Your task to perform on an android device: open app "NewsBreak: Local News & Alerts" (install if not already installed) Image 0: 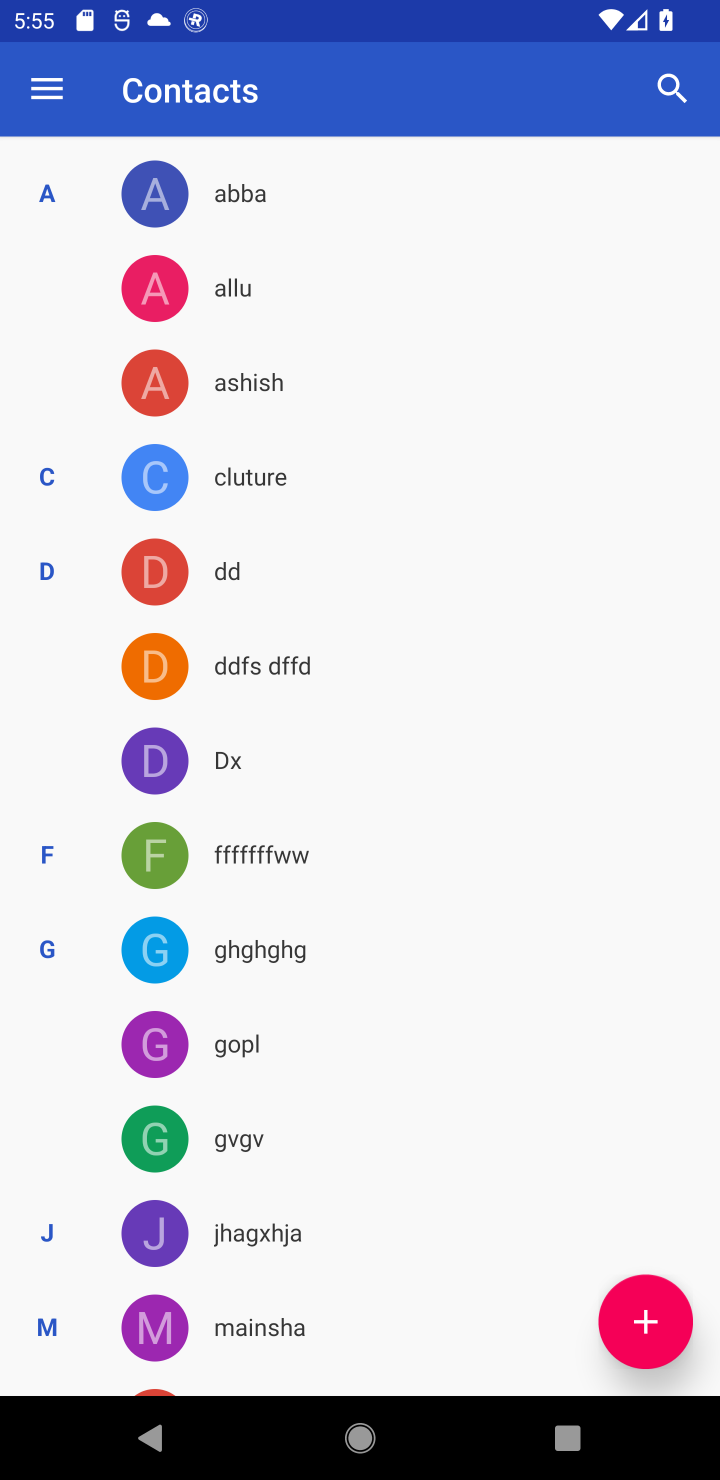
Step 0: press home button
Your task to perform on an android device: open app "NewsBreak: Local News & Alerts" (install if not already installed) Image 1: 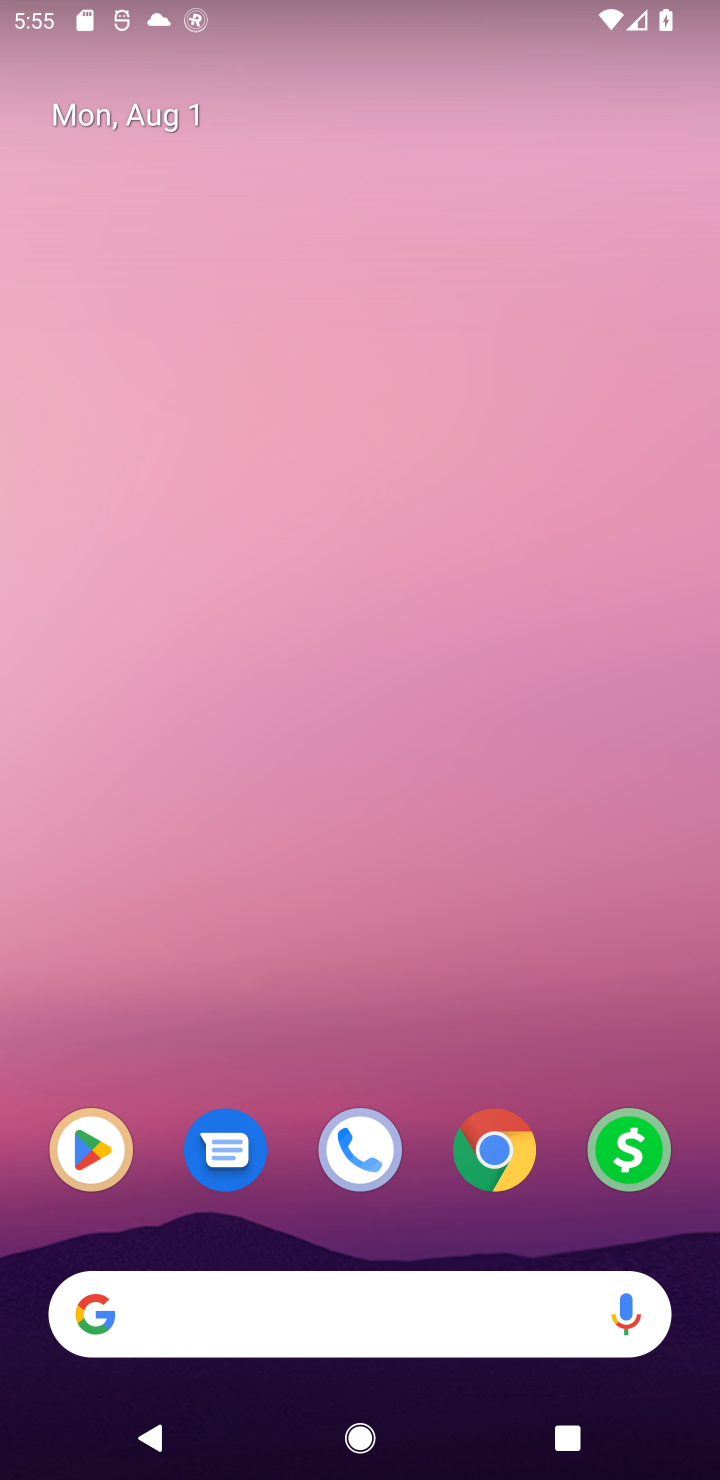
Step 1: click (59, 1167)
Your task to perform on an android device: open app "NewsBreak: Local News & Alerts" (install if not already installed) Image 2: 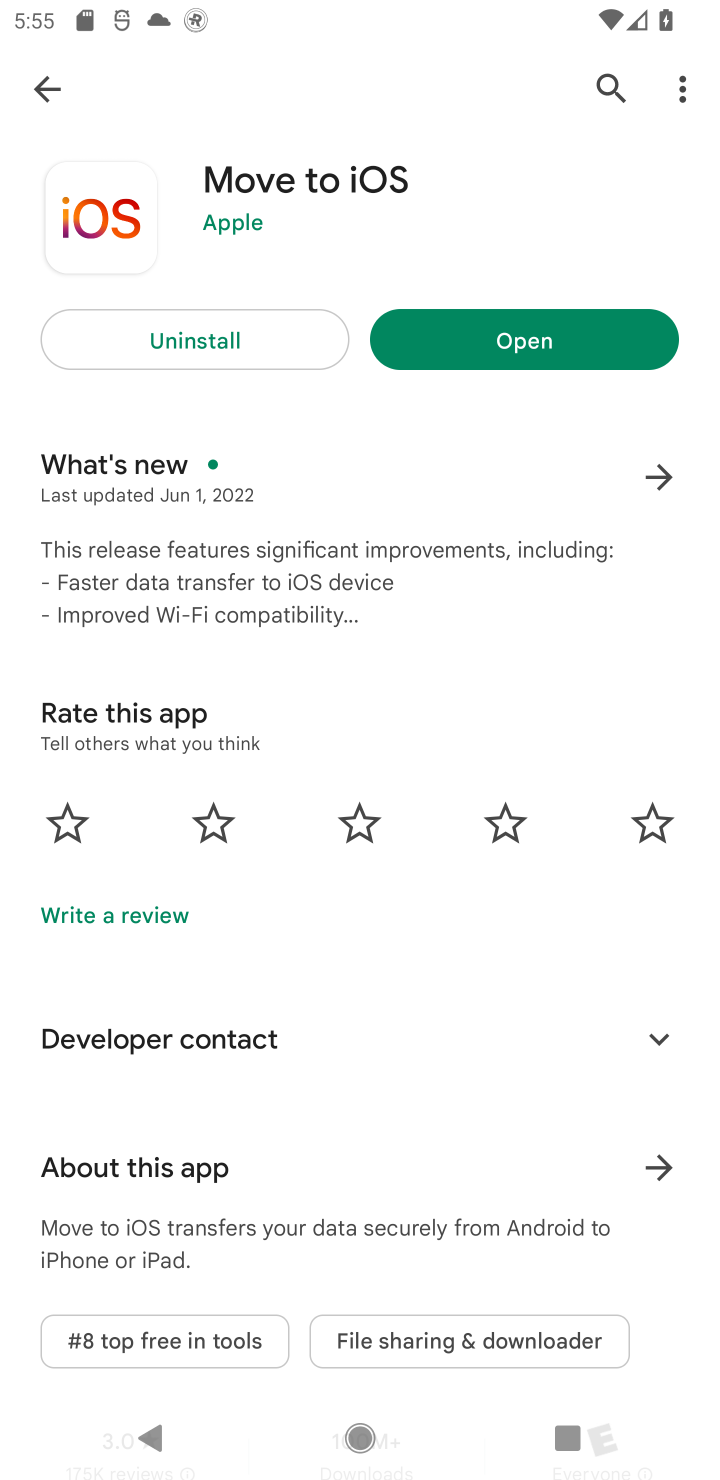
Step 2: click (615, 102)
Your task to perform on an android device: open app "NewsBreak: Local News & Alerts" (install if not already installed) Image 3: 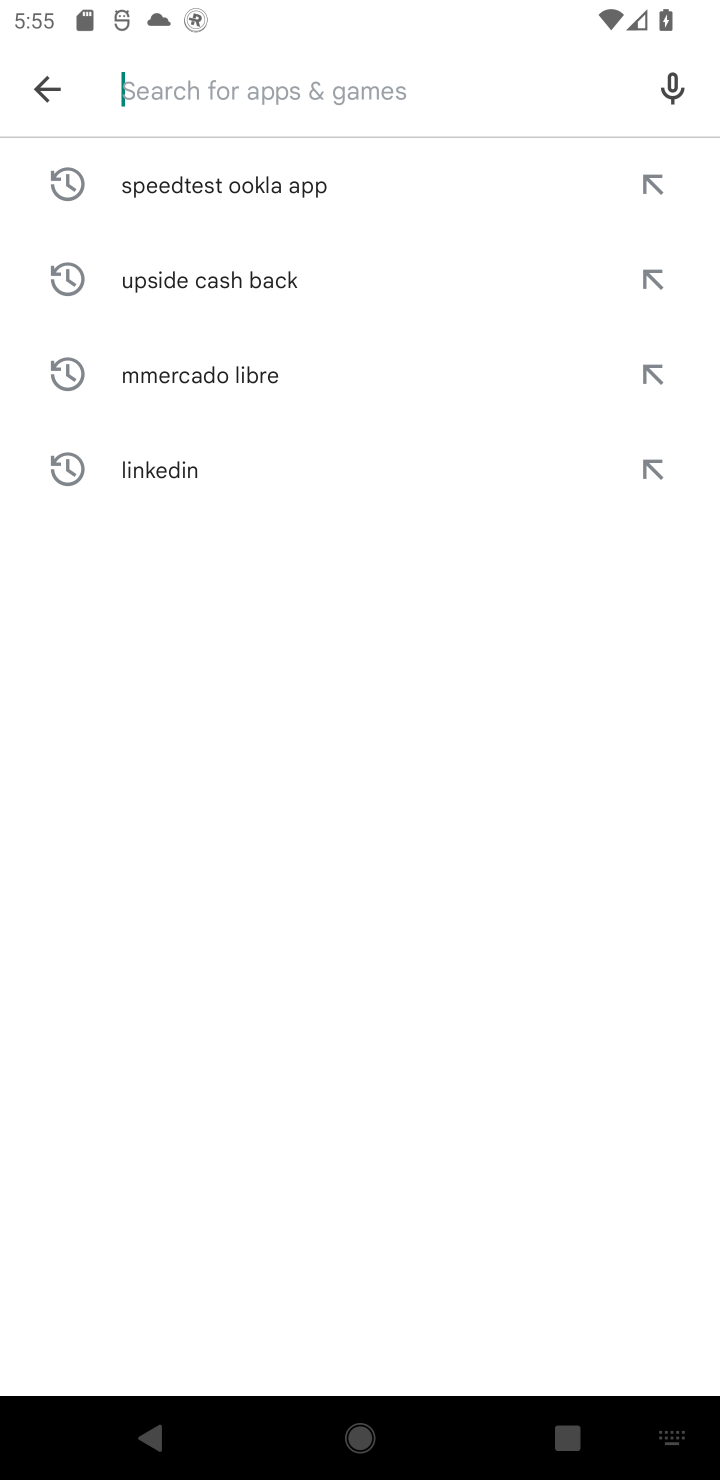
Step 3: type "newsbreak"
Your task to perform on an android device: open app "NewsBreak: Local News & Alerts" (install if not already installed) Image 4: 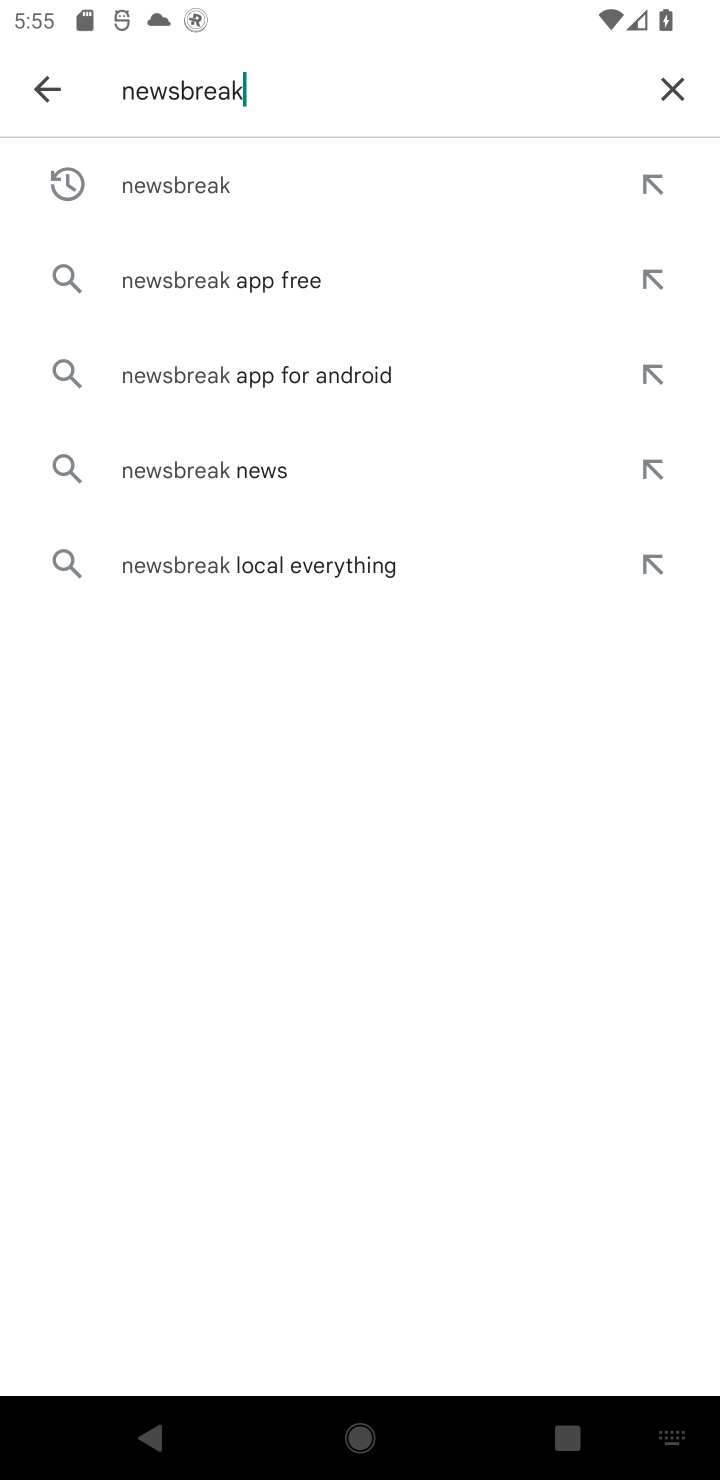
Step 4: click (401, 231)
Your task to perform on an android device: open app "NewsBreak: Local News & Alerts" (install if not already installed) Image 5: 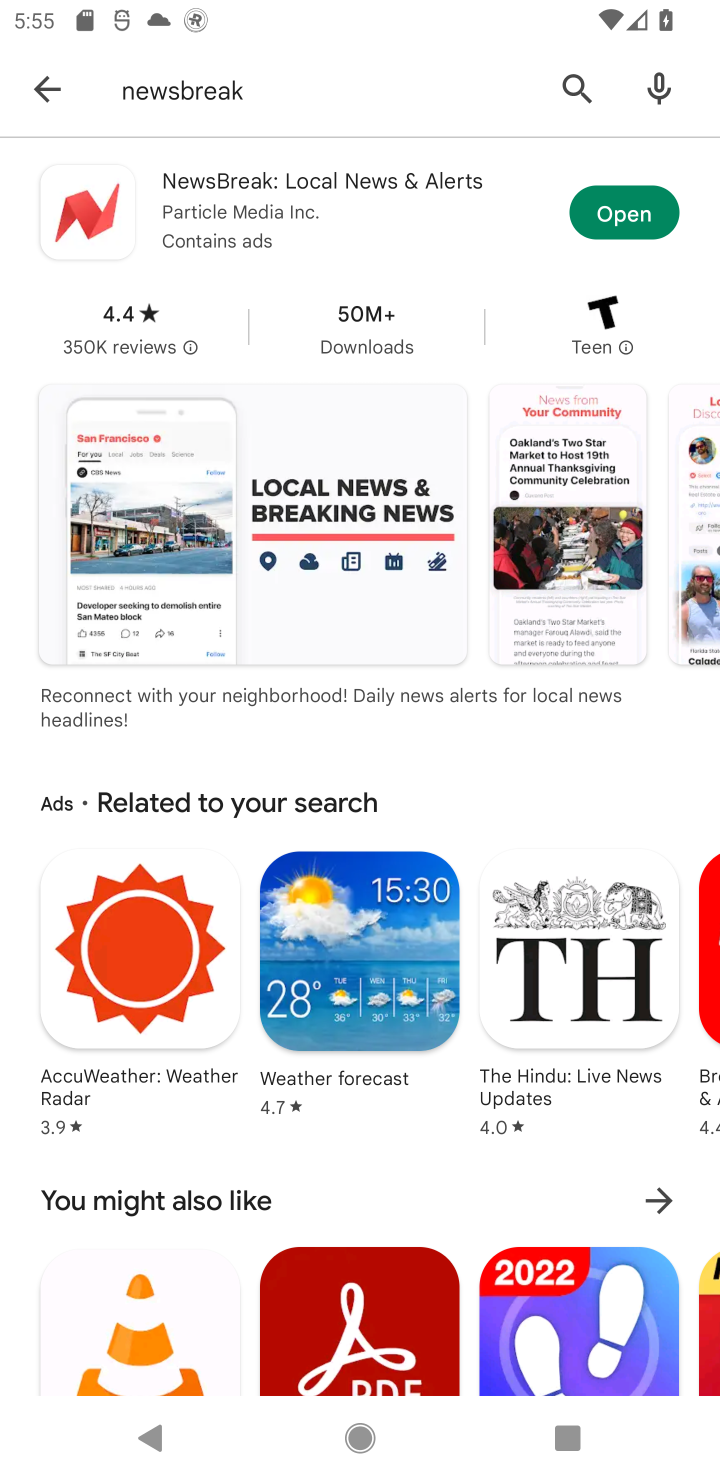
Step 5: click (588, 214)
Your task to perform on an android device: open app "NewsBreak: Local News & Alerts" (install if not already installed) Image 6: 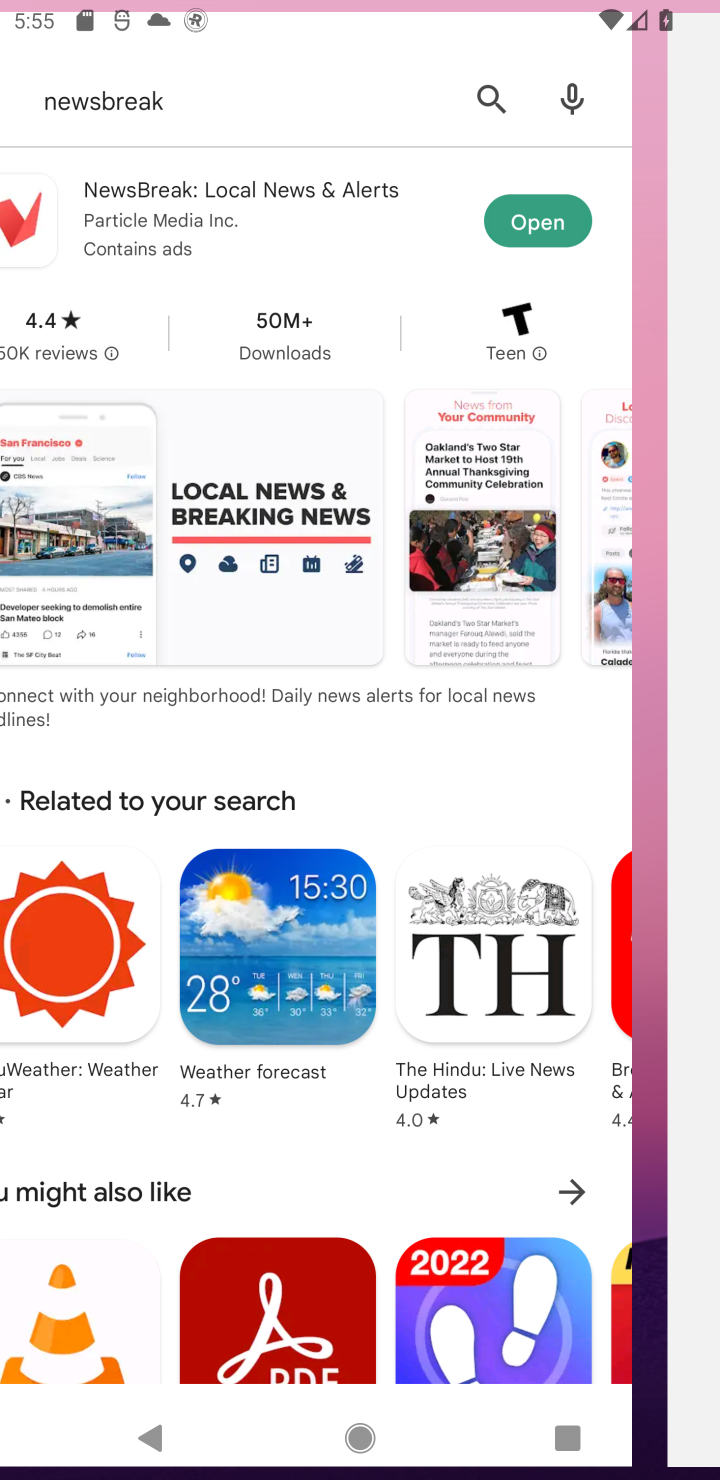
Step 6: task complete